Your task to perform on an android device: Empty the shopping cart on ebay. Add acer nitro to the cart on ebay Image 0: 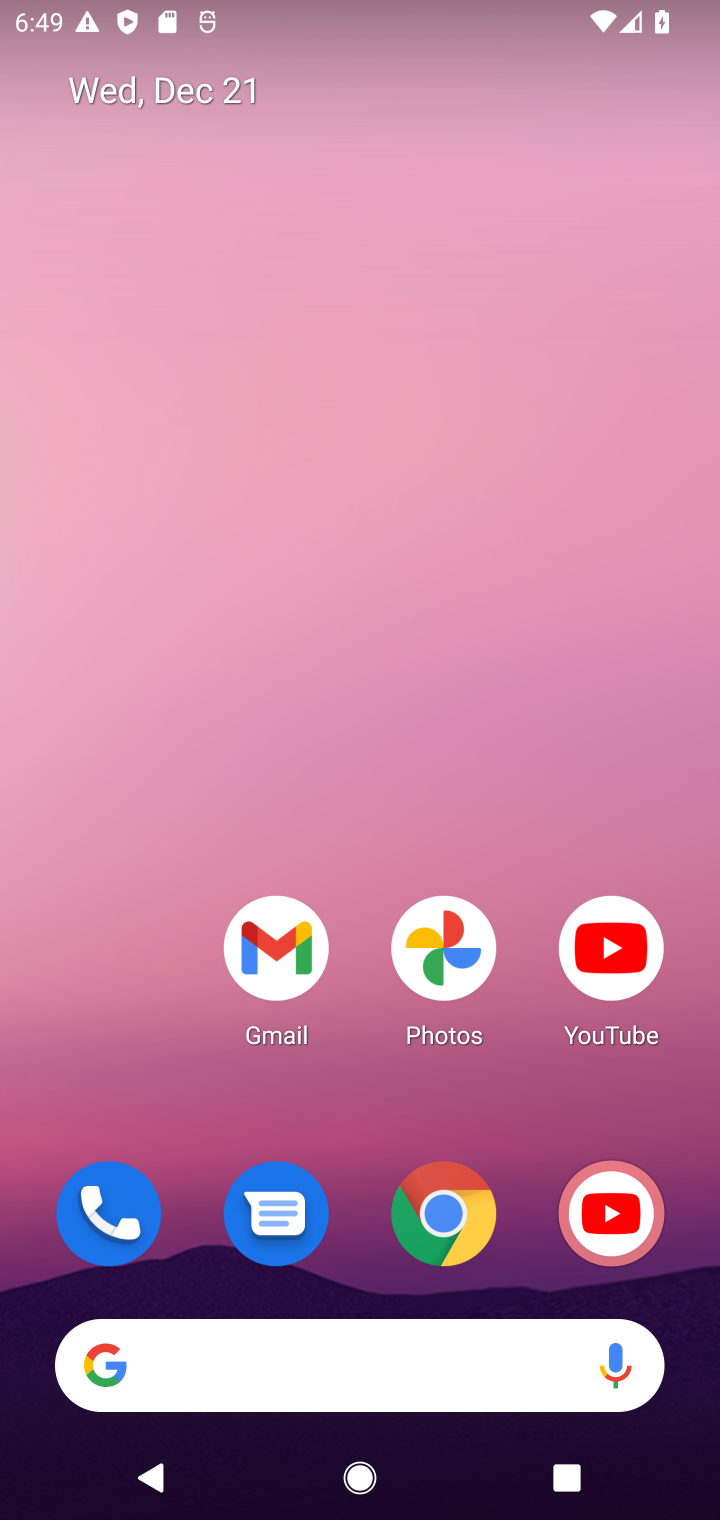
Step 0: click (401, 1215)
Your task to perform on an android device: Empty the shopping cart on ebay. Add acer nitro to the cart on ebay Image 1: 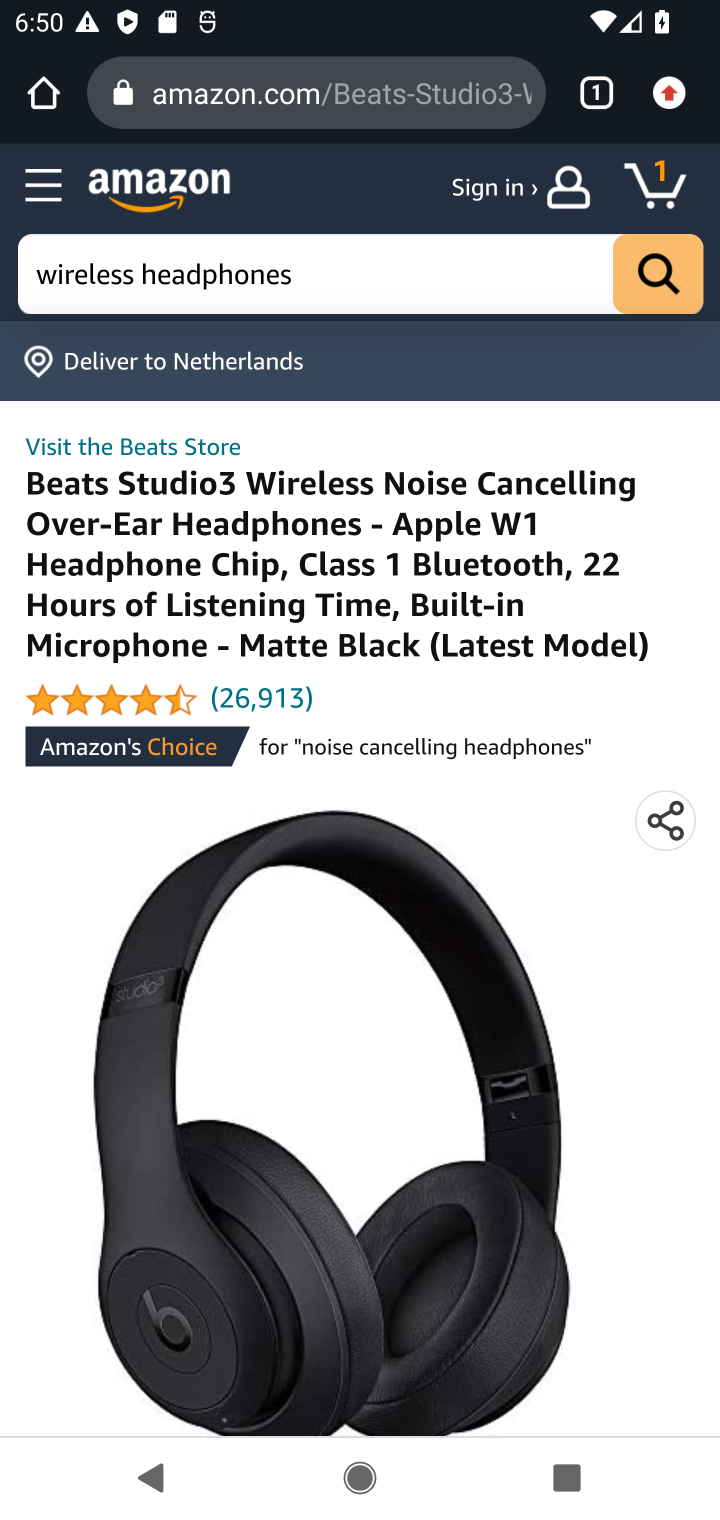
Step 1: drag from (333, 1058) to (202, 401)
Your task to perform on an android device: Empty the shopping cart on ebay. Add acer nitro to the cart on ebay Image 2: 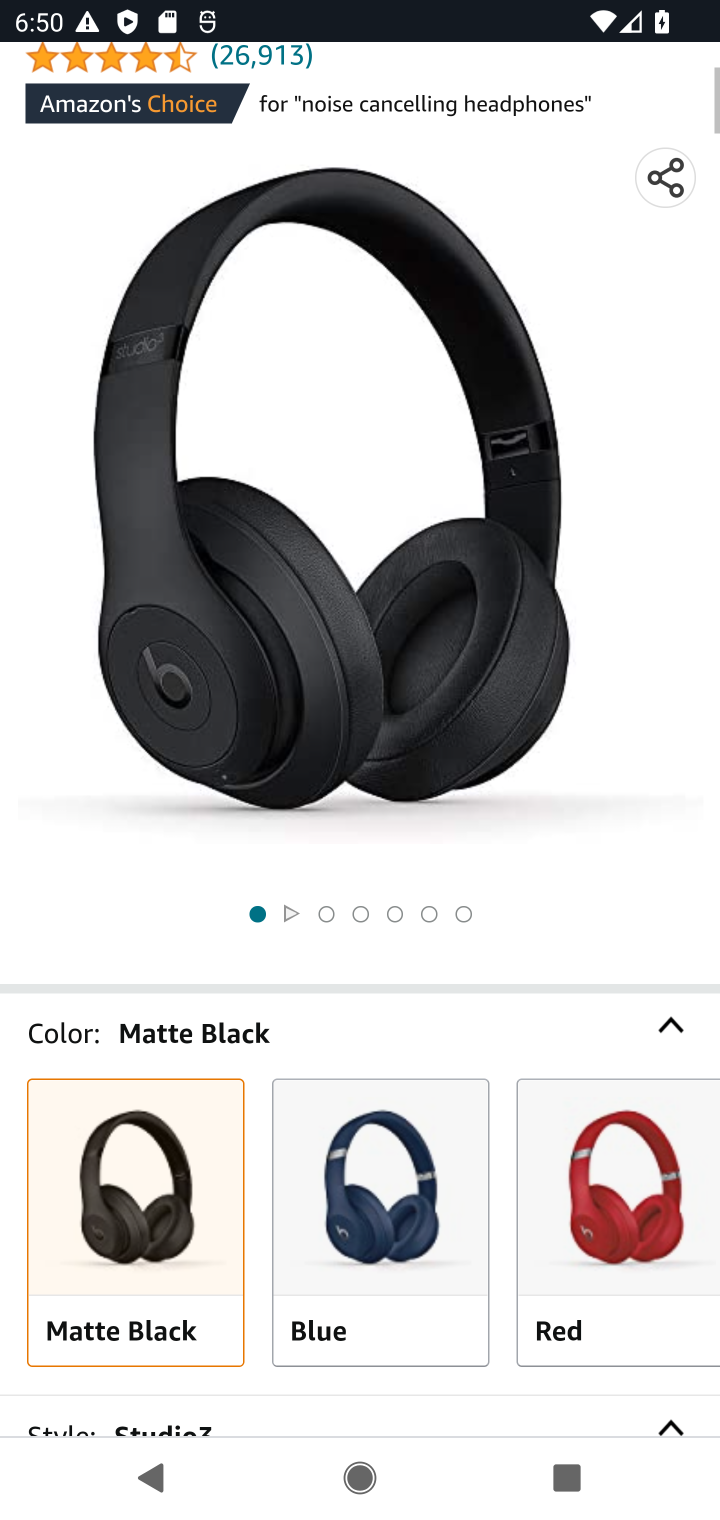
Step 2: drag from (379, 1196) to (301, 1511)
Your task to perform on an android device: Empty the shopping cart on ebay. Add acer nitro to the cart on ebay Image 3: 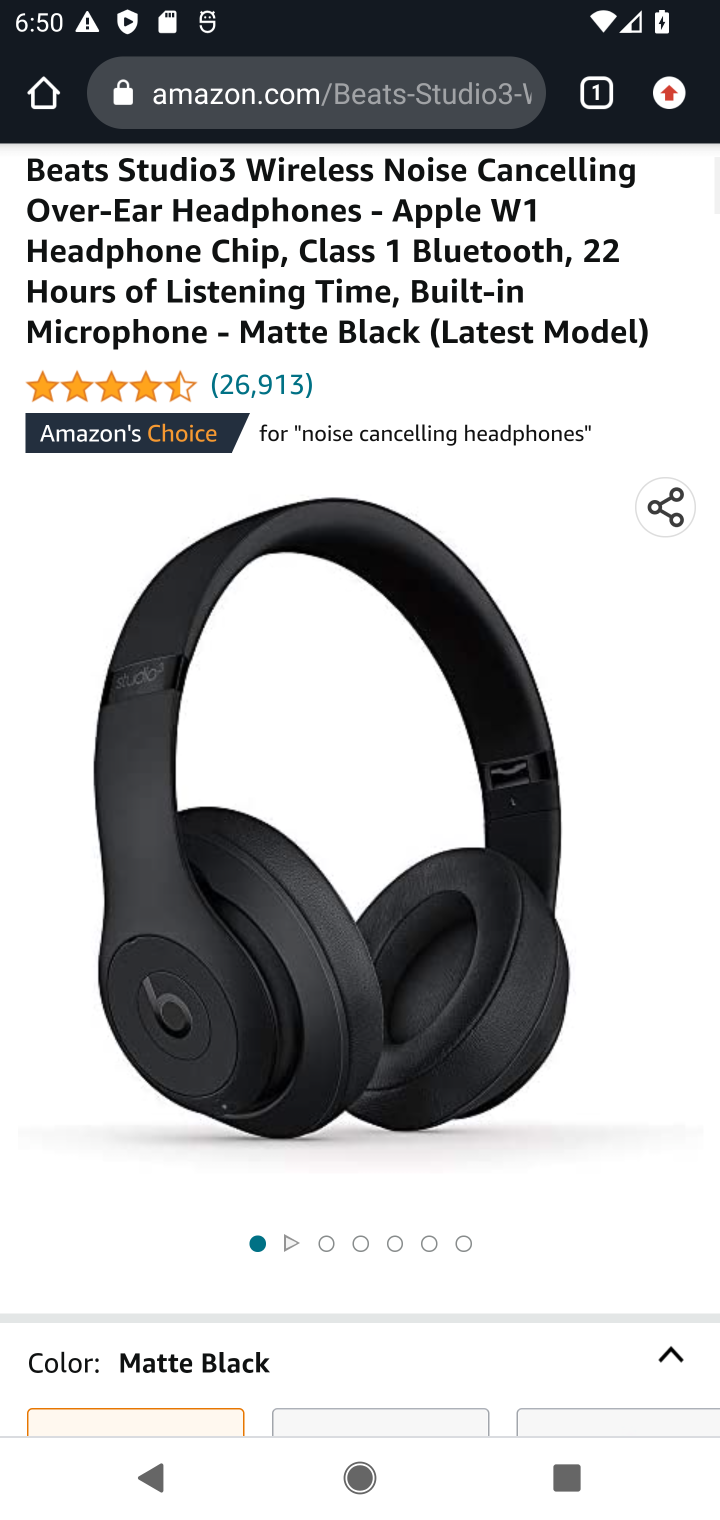
Step 3: drag from (438, 335) to (197, 1464)
Your task to perform on an android device: Empty the shopping cart on ebay. Add acer nitro to the cart on ebay Image 4: 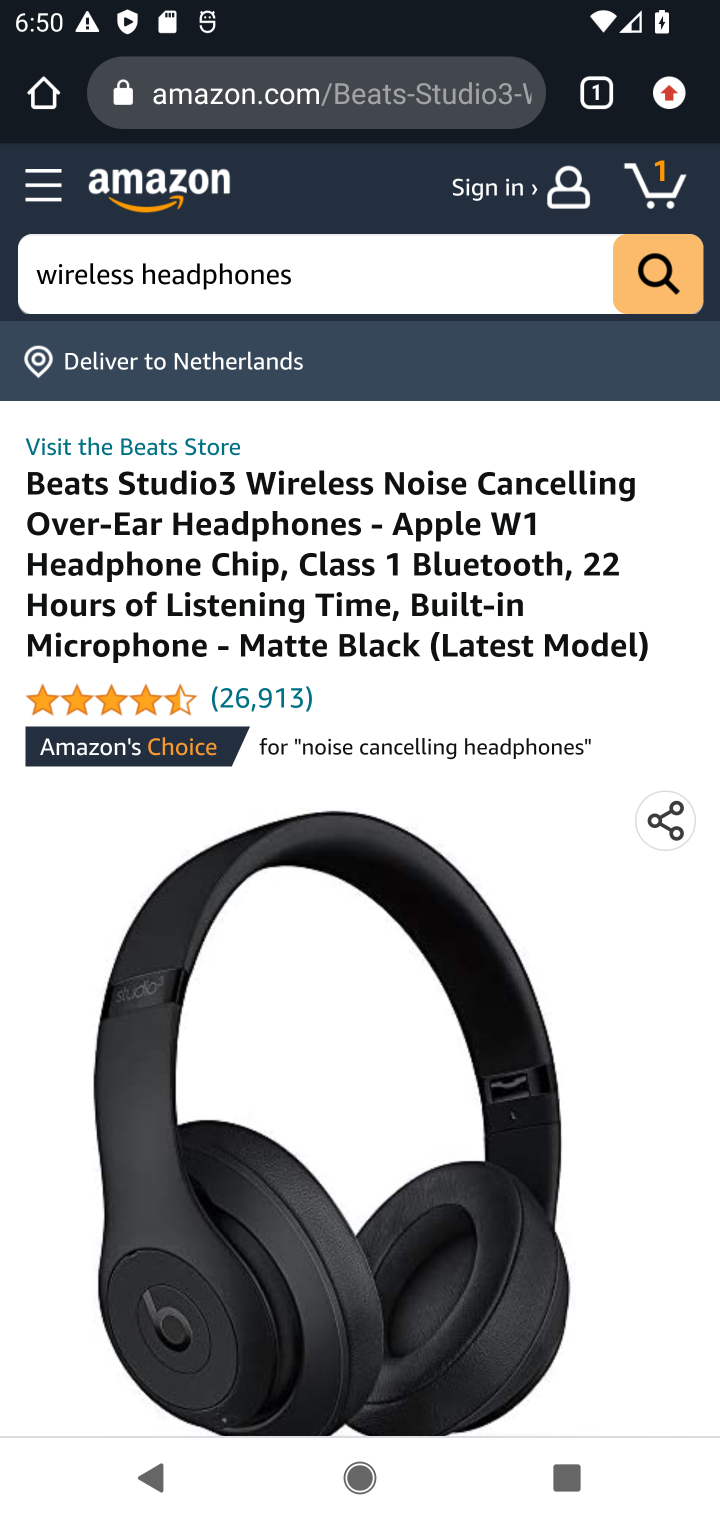
Step 4: click (661, 171)
Your task to perform on an android device: Empty the shopping cart on ebay. Add acer nitro to the cart on ebay Image 5: 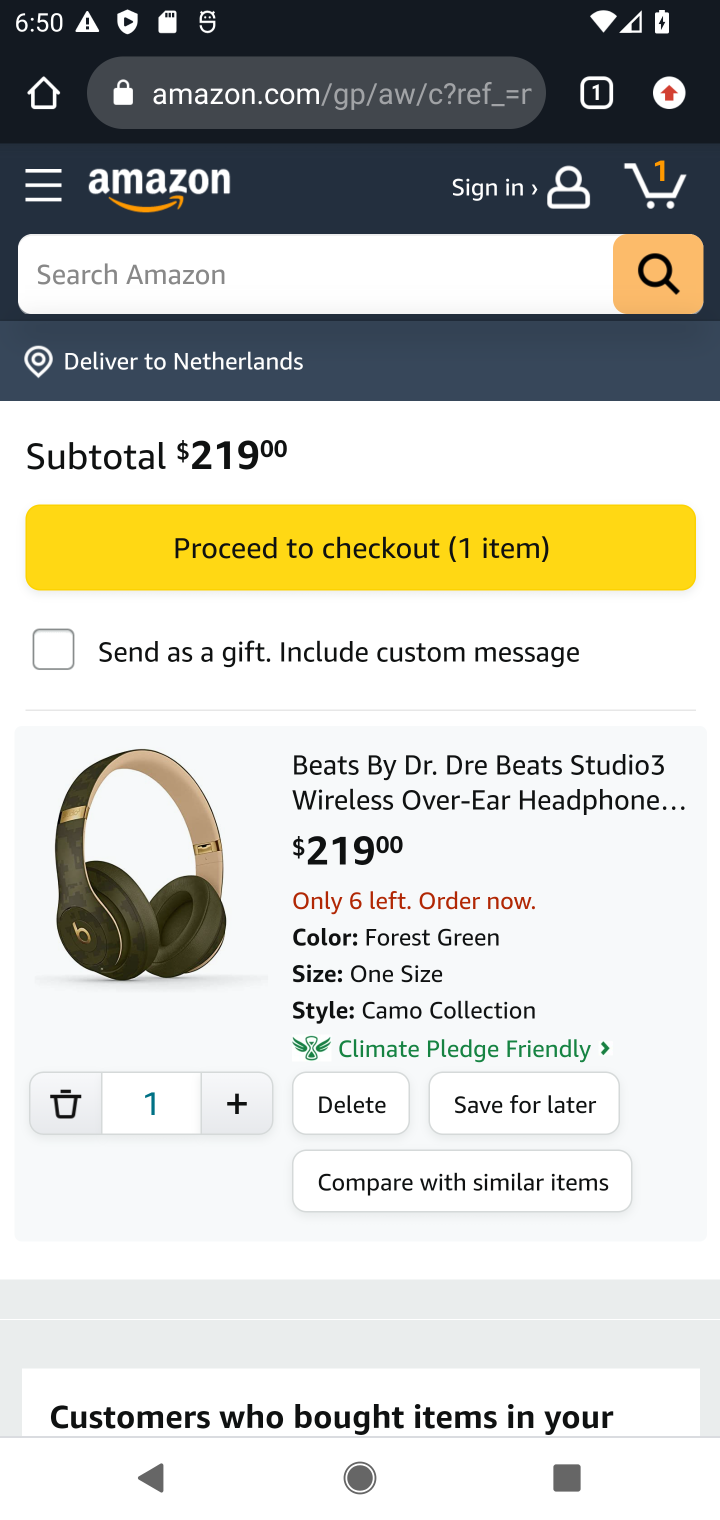
Step 5: click (339, 1088)
Your task to perform on an android device: Empty the shopping cart on ebay. Add acer nitro to the cart on ebay Image 6: 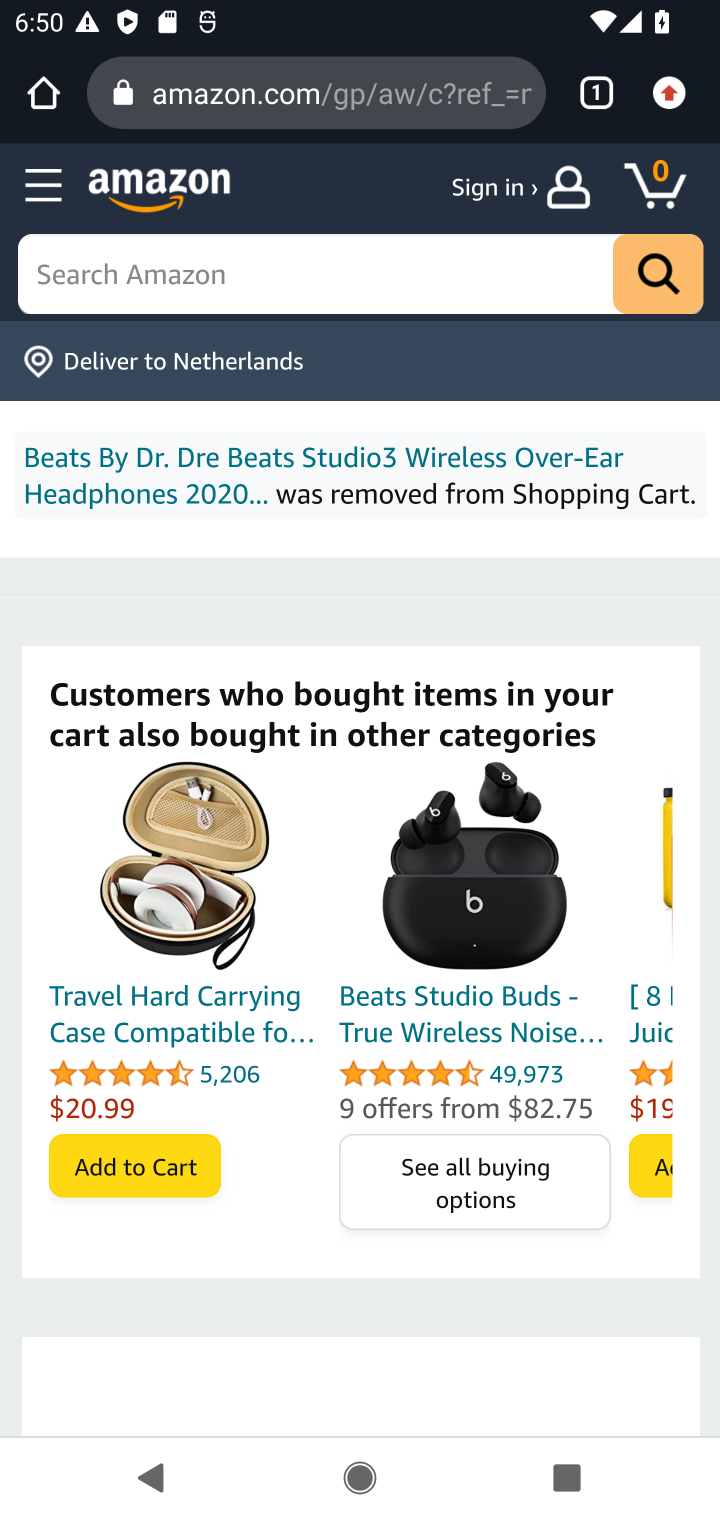
Step 6: click (309, 256)
Your task to perform on an android device: Empty the shopping cart on ebay. Add acer nitro to the cart on ebay Image 7: 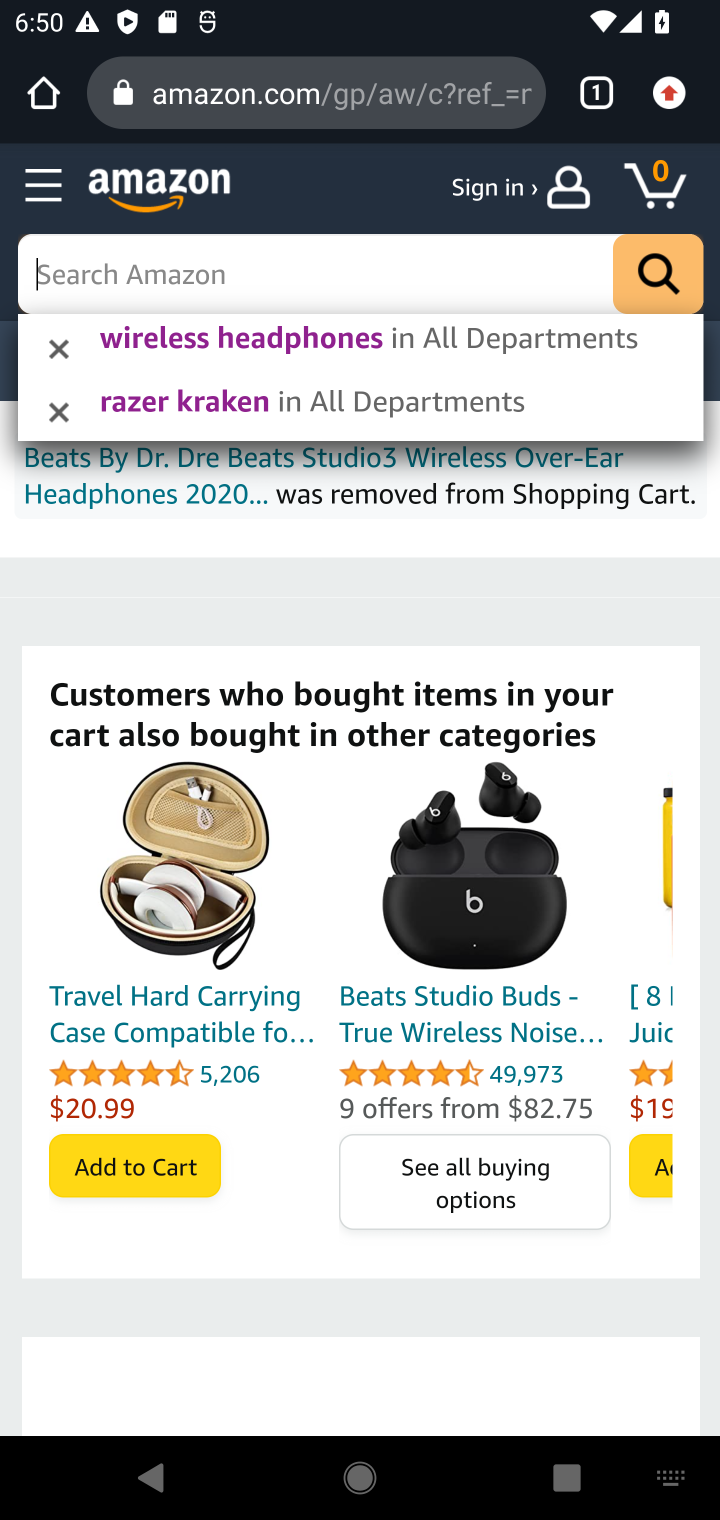
Step 7: type "acer nitro"
Your task to perform on an android device: Empty the shopping cart on ebay. Add acer nitro to the cart on ebay Image 8: 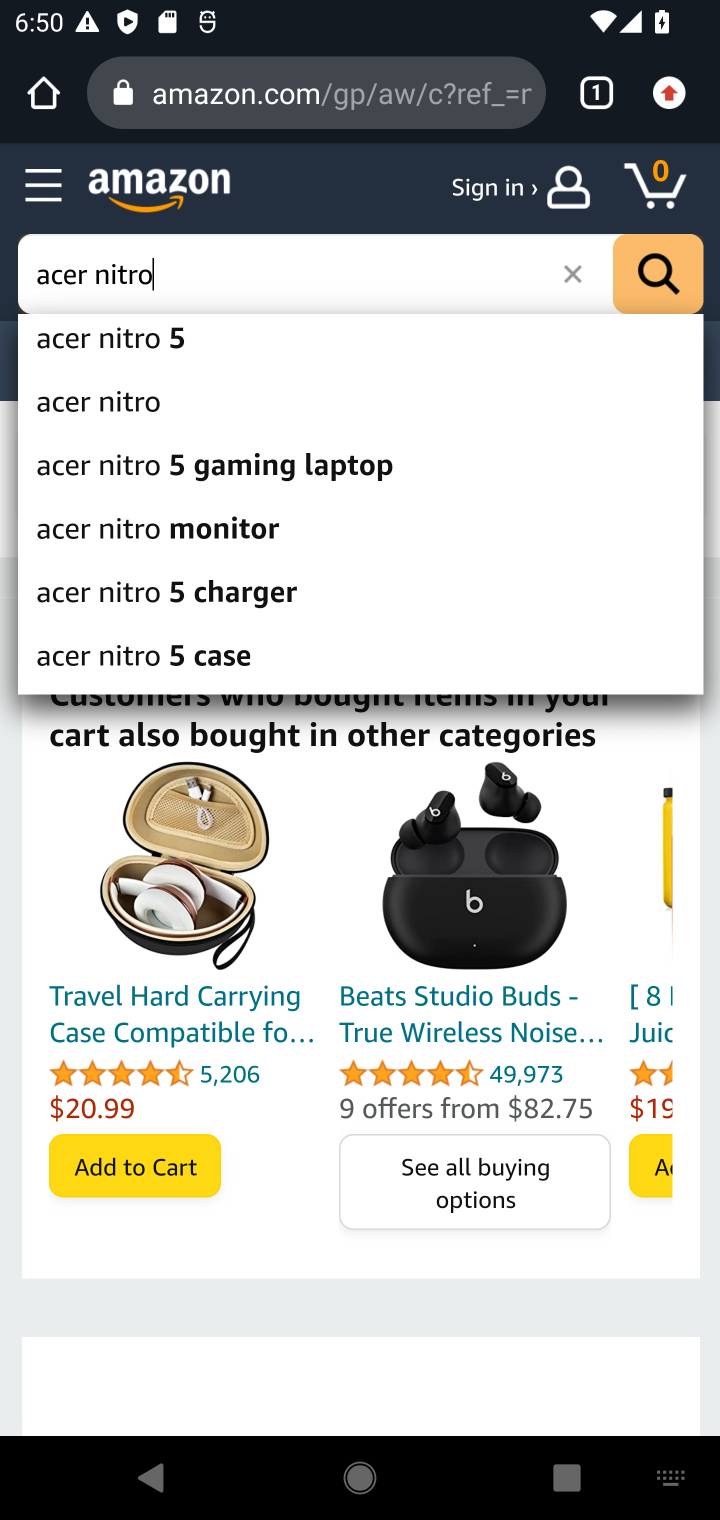
Step 8: click (83, 396)
Your task to perform on an android device: Empty the shopping cart on ebay. Add acer nitro to the cart on ebay Image 9: 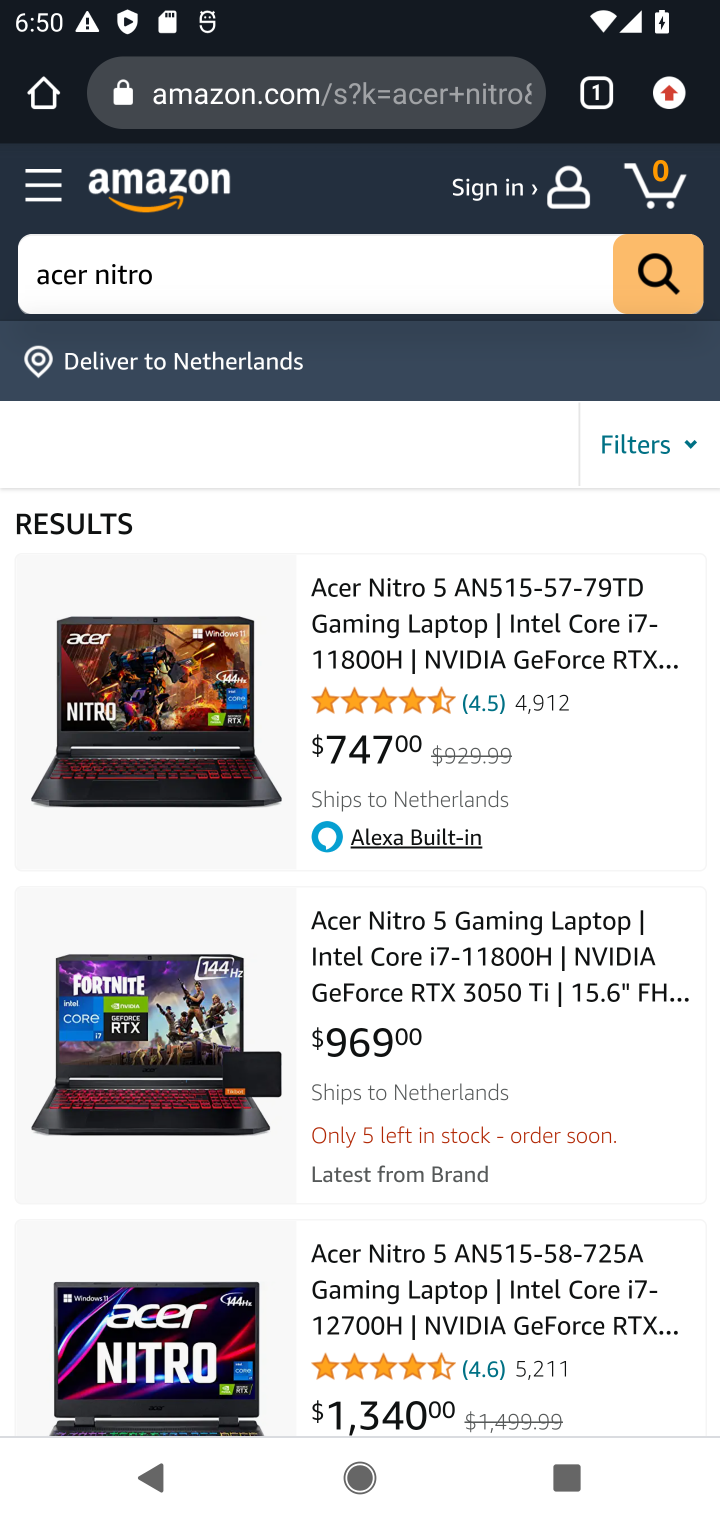
Step 9: click (482, 637)
Your task to perform on an android device: Empty the shopping cart on ebay. Add acer nitro to the cart on ebay Image 10: 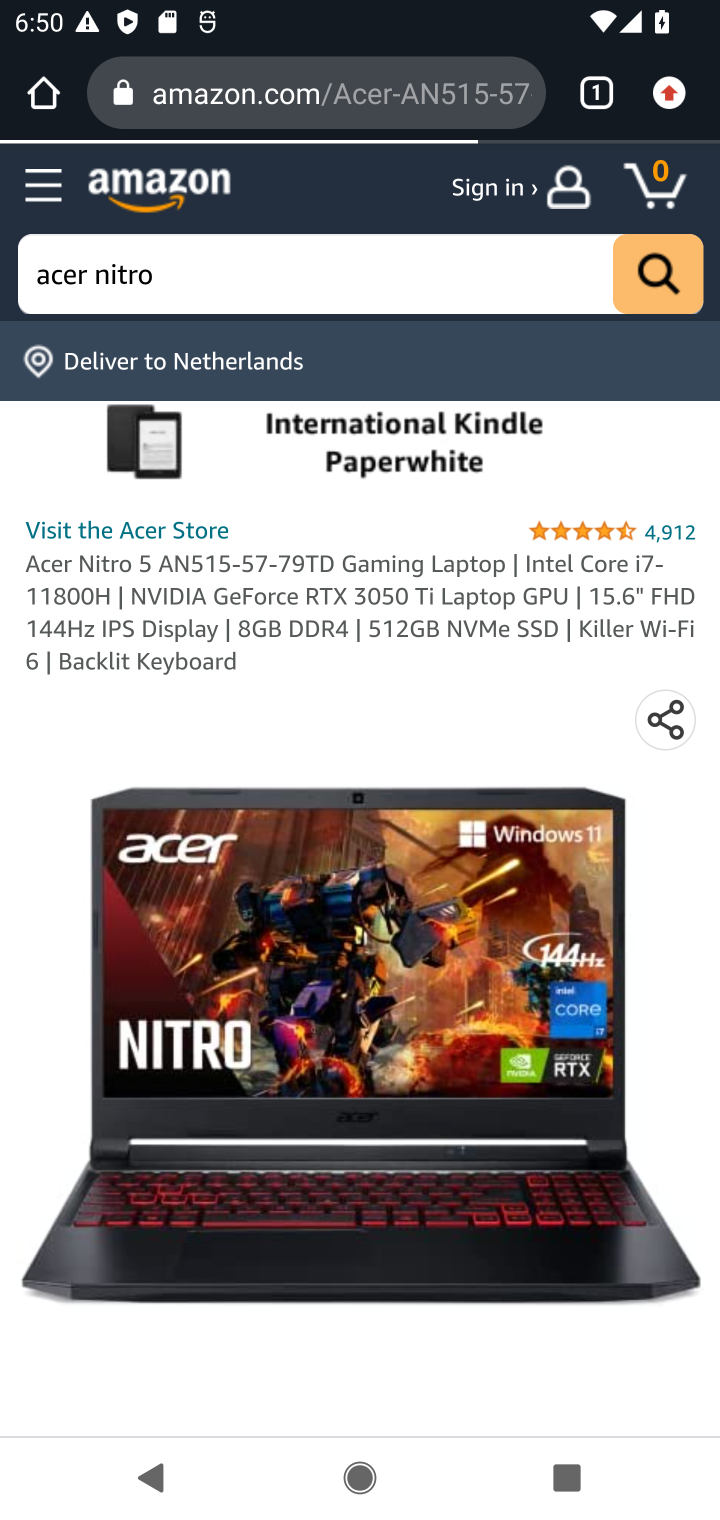
Step 10: drag from (289, 1112) to (213, 425)
Your task to perform on an android device: Empty the shopping cart on ebay. Add acer nitro to the cart on ebay Image 11: 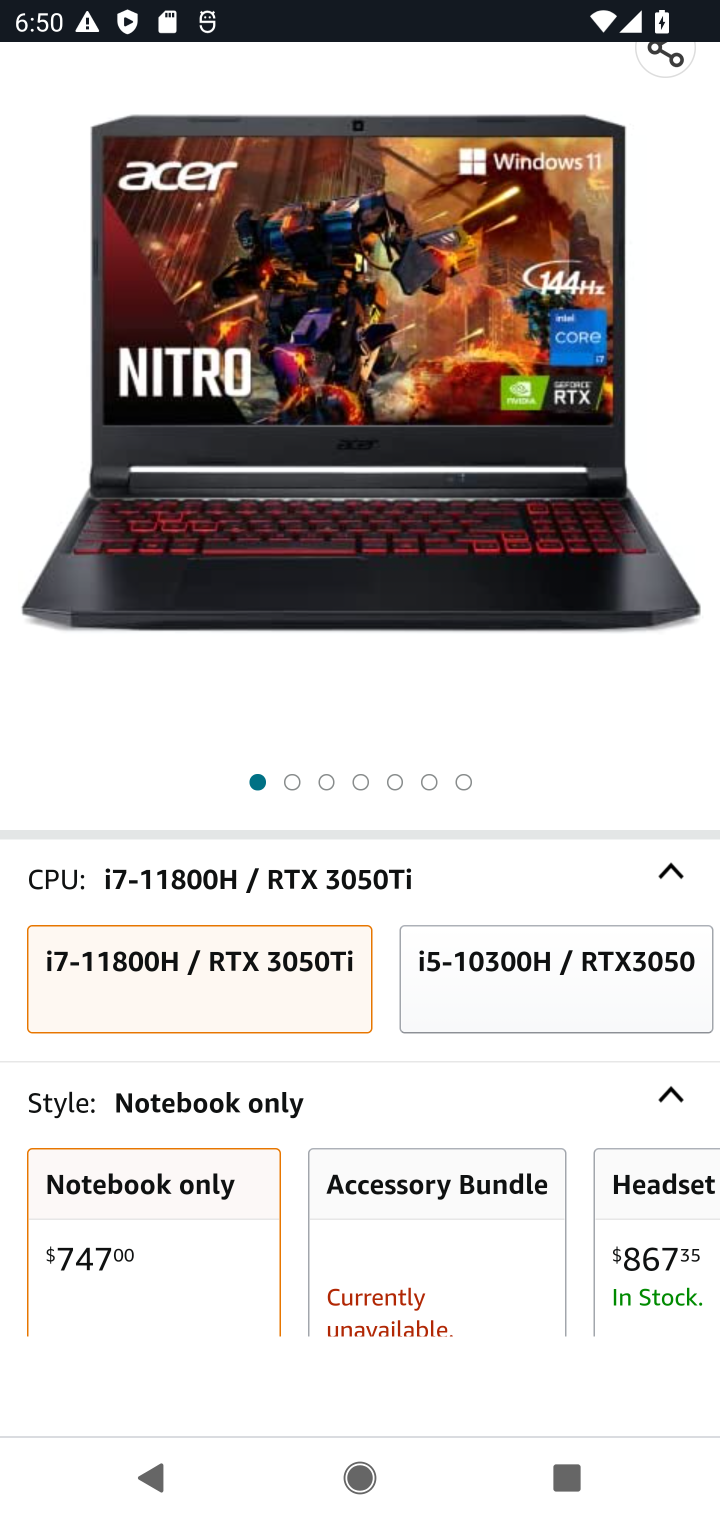
Step 11: drag from (367, 1137) to (342, 110)
Your task to perform on an android device: Empty the shopping cart on ebay. Add acer nitro to the cart on ebay Image 12: 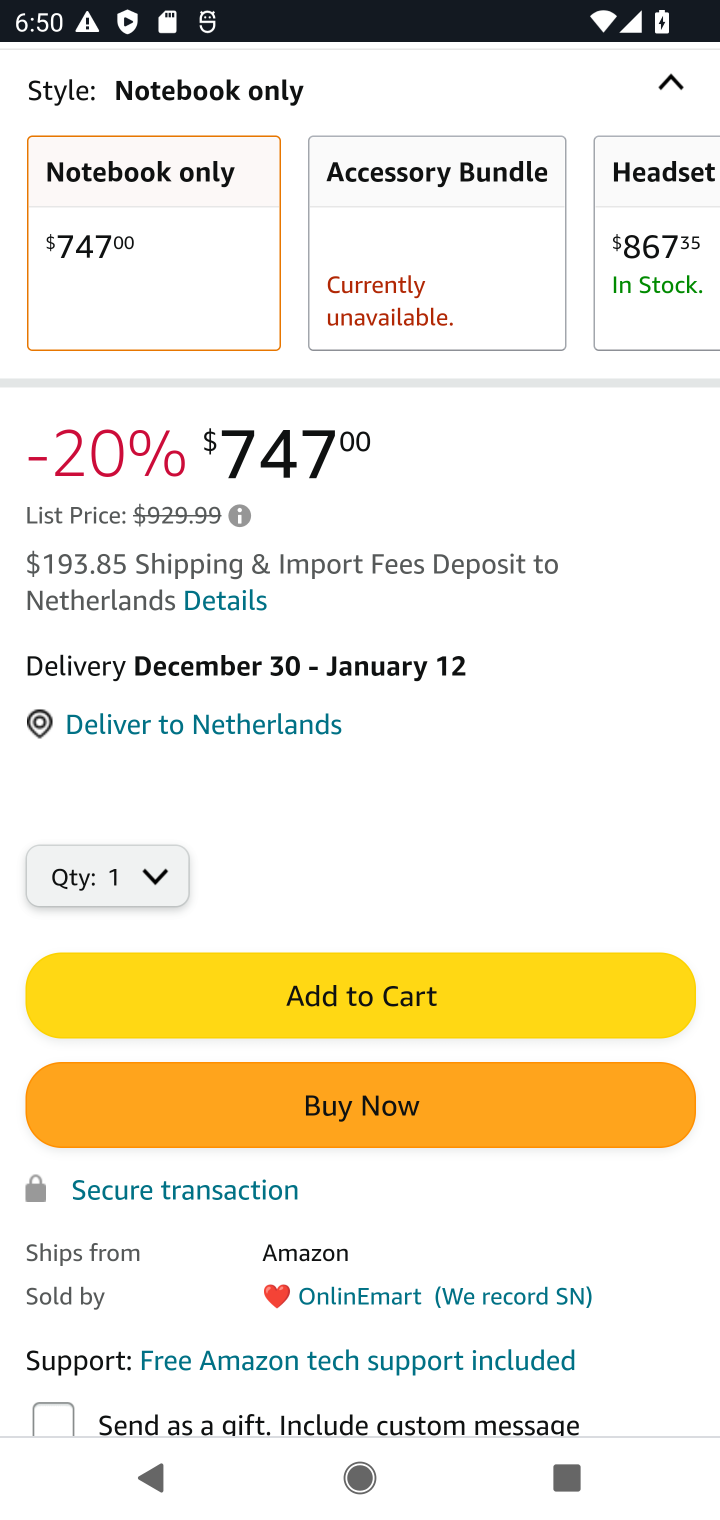
Step 12: click (493, 995)
Your task to perform on an android device: Empty the shopping cart on ebay. Add acer nitro to the cart on ebay Image 13: 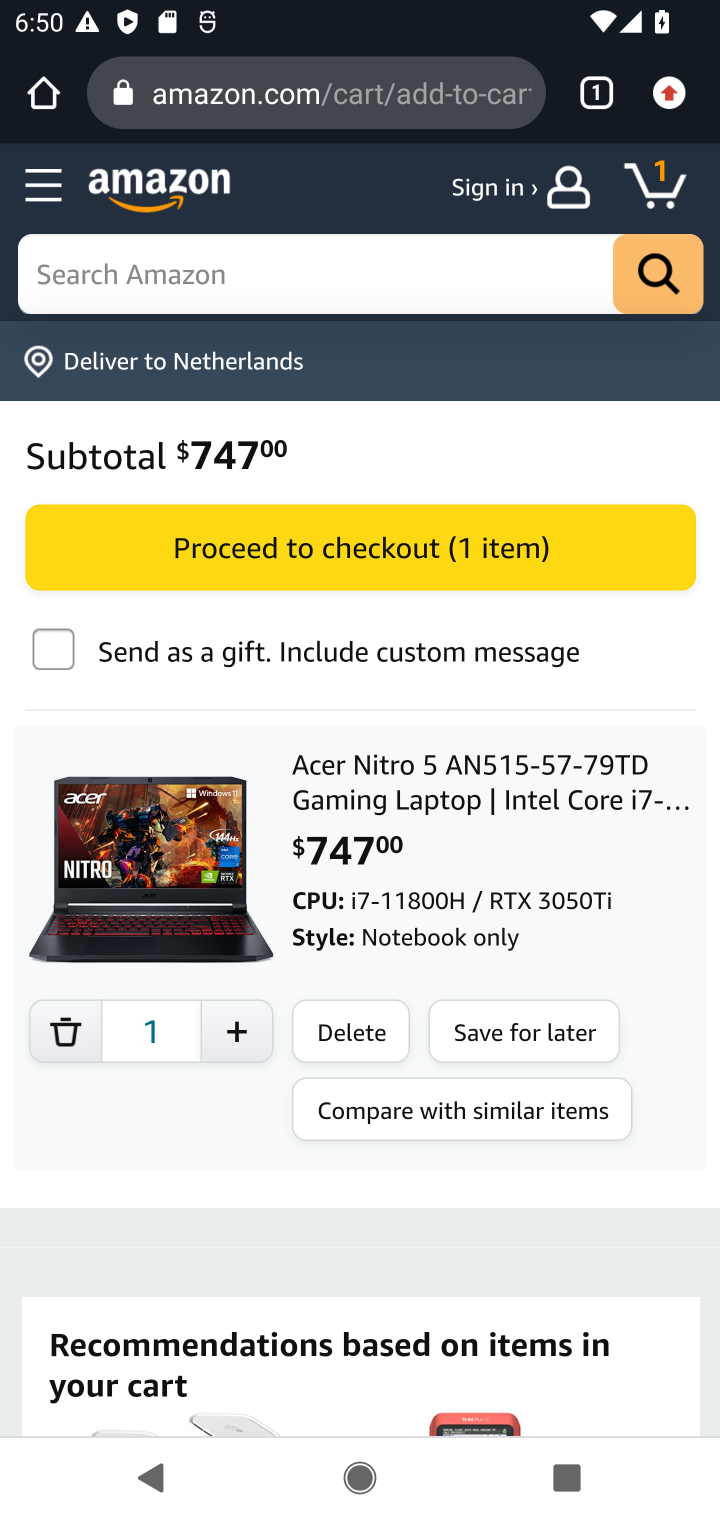
Step 13: task complete